Your task to perform on an android device: toggle notifications settings in the gmail app Image 0: 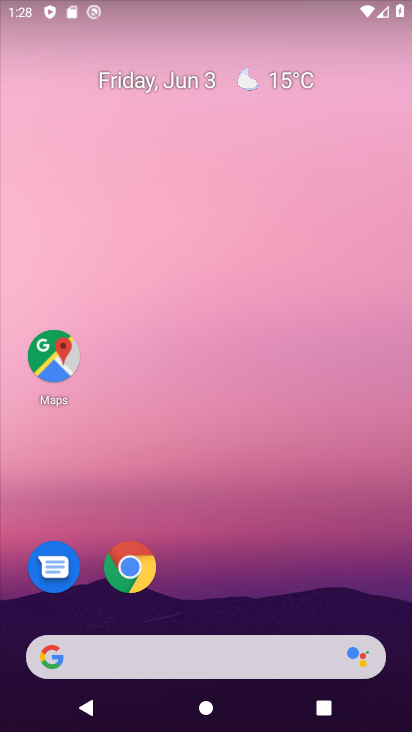
Step 0: click (255, 635)
Your task to perform on an android device: toggle notifications settings in the gmail app Image 1: 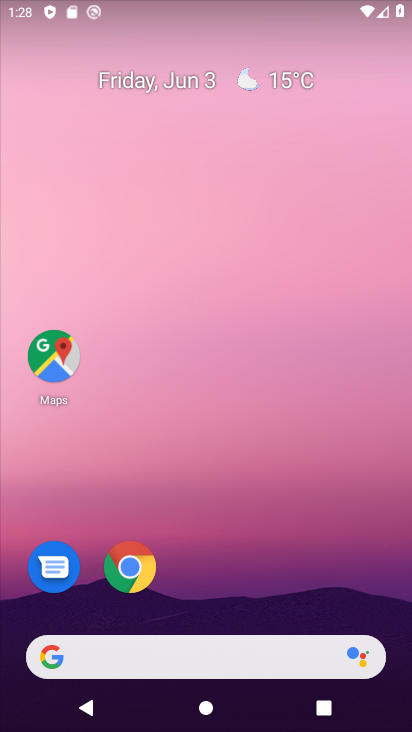
Step 1: drag from (255, 635) to (314, 199)
Your task to perform on an android device: toggle notifications settings in the gmail app Image 2: 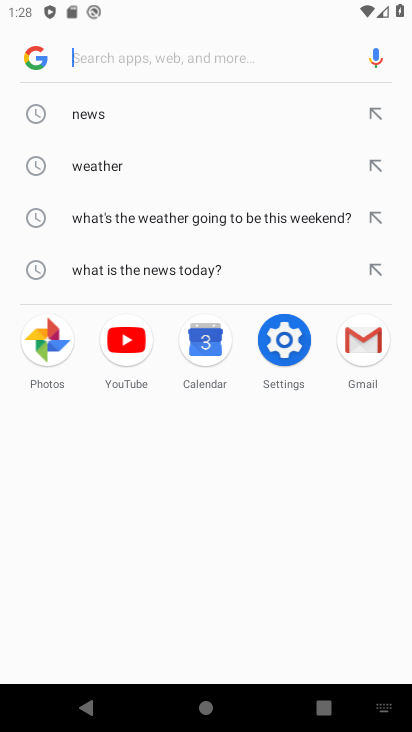
Step 2: click (363, 346)
Your task to perform on an android device: toggle notifications settings in the gmail app Image 3: 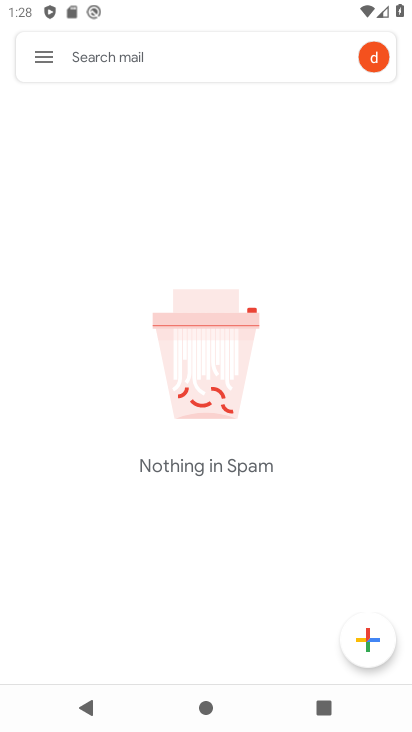
Step 3: click (43, 55)
Your task to perform on an android device: toggle notifications settings in the gmail app Image 4: 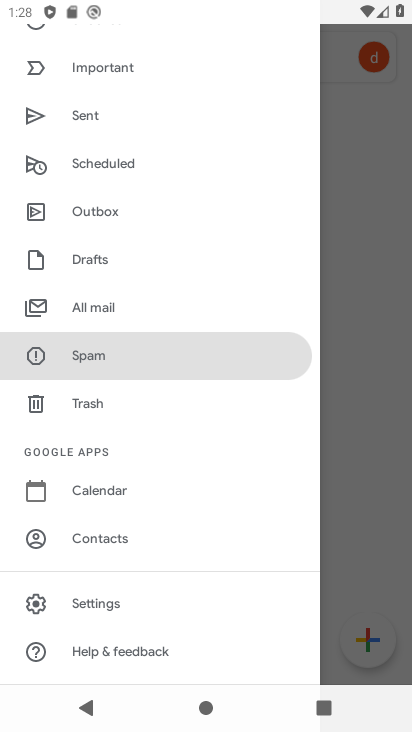
Step 4: click (103, 606)
Your task to perform on an android device: toggle notifications settings in the gmail app Image 5: 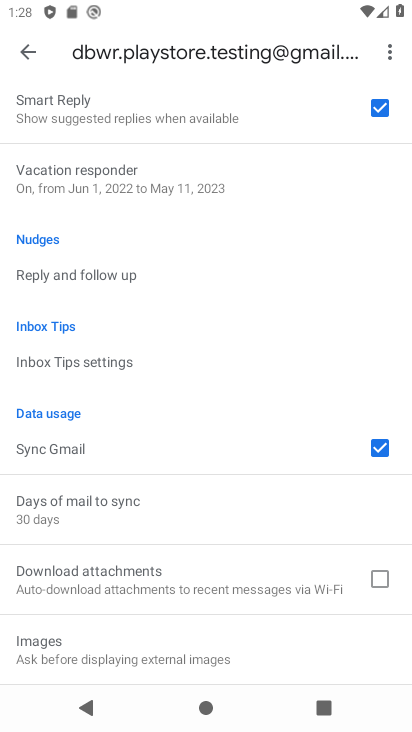
Step 5: click (28, 56)
Your task to perform on an android device: toggle notifications settings in the gmail app Image 6: 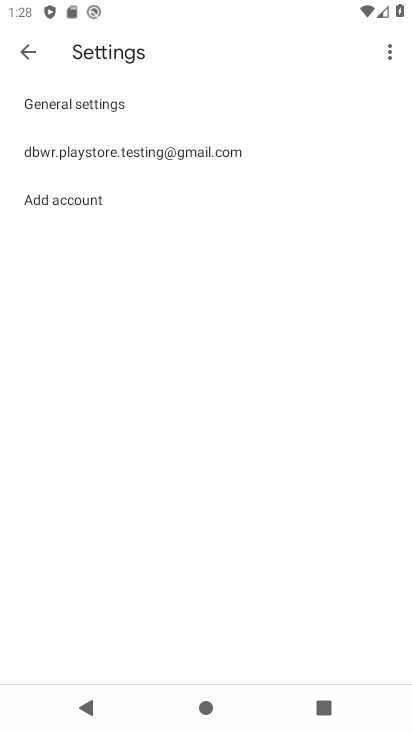
Step 6: click (60, 101)
Your task to perform on an android device: toggle notifications settings in the gmail app Image 7: 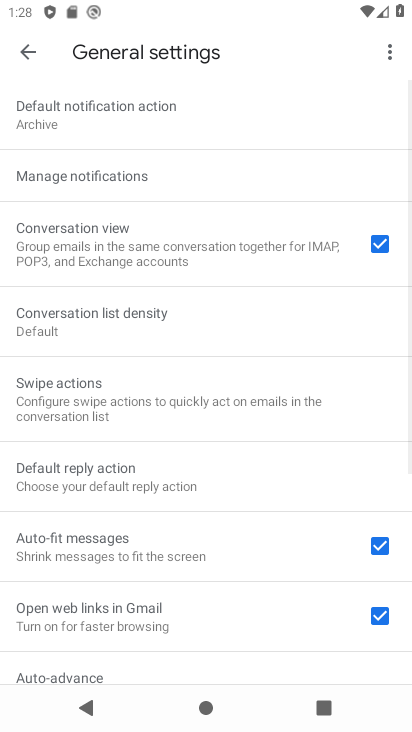
Step 7: click (75, 174)
Your task to perform on an android device: toggle notifications settings in the gmail app Image 8: 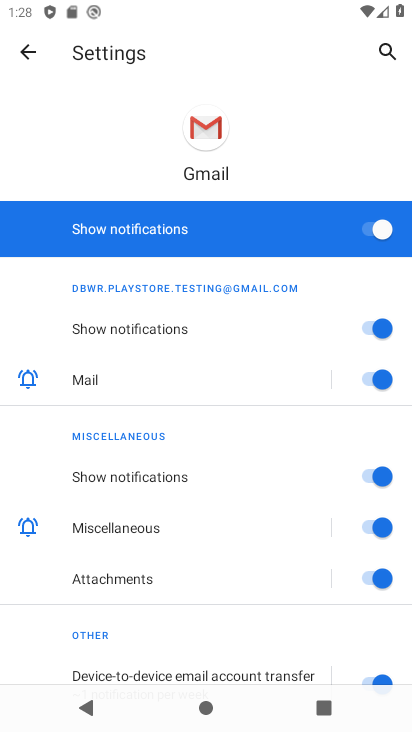
Step 8: click (368, 221)
Your task to perform on an android device: toggle notifications settings in the gmail app Image 9: 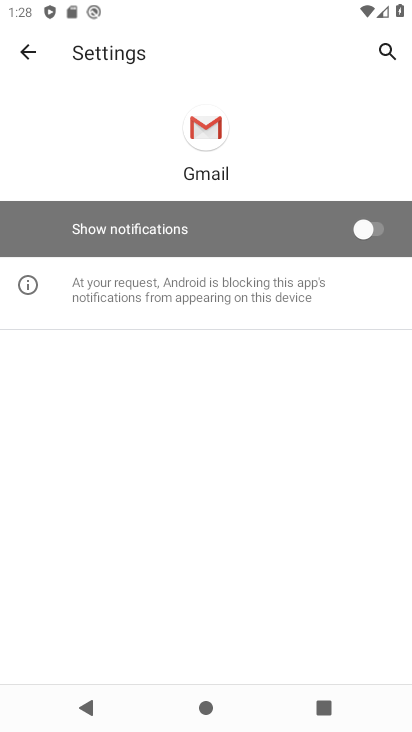
Step 9: task complete